Your task to perform on an android device: Open calendar and show me the third week of next month Image 0: 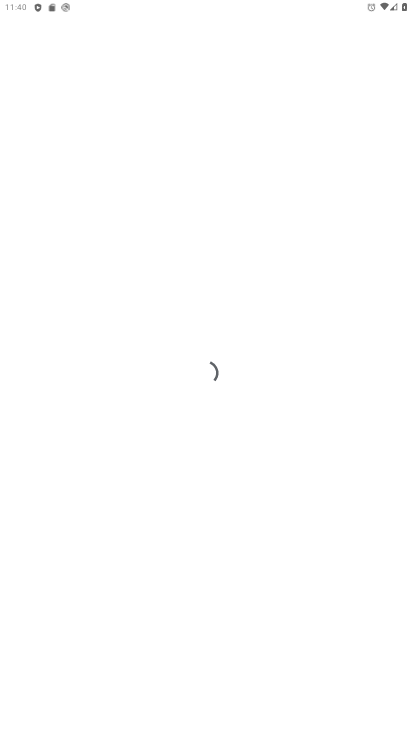
Step 0: press home button
Your task to perform on an android device: Open calendar and show me the third week of next month Image 1: 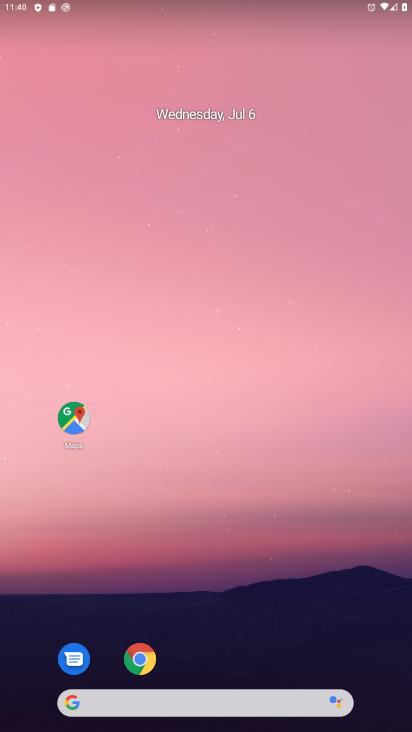
Step 1: click (245, 115)
Your task to perform on an android device: Open calendar and show me the third week of next month Image 2: 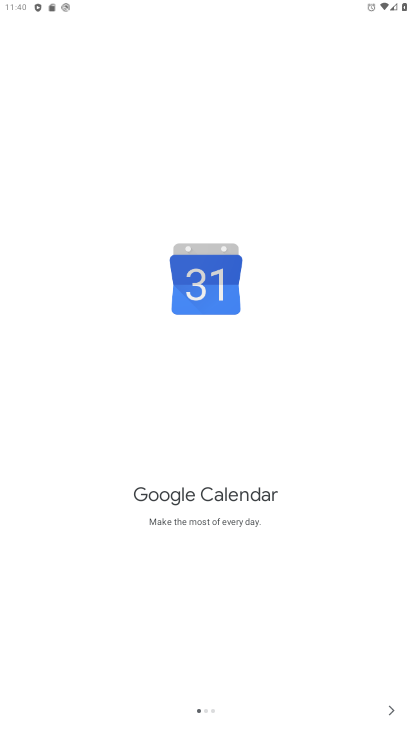
Step 2: click (395, 714)
Your task to perform on an android device: Open calendar and show me the third week of next month Image 3: 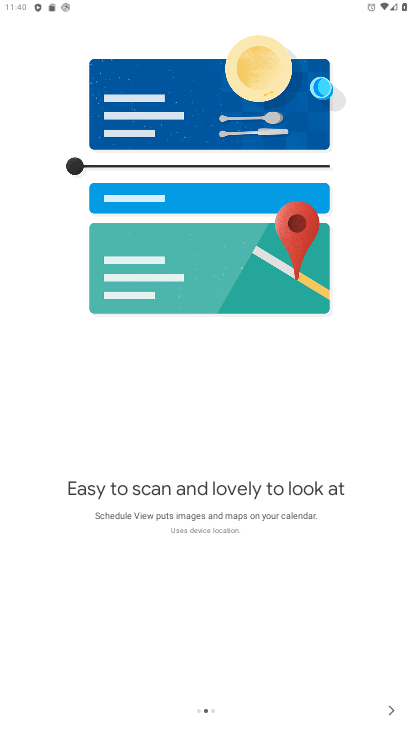
Step 3: click (395, 714)
Your task to perform on an android device: Open calendar and show me the third week of next month Image 4: 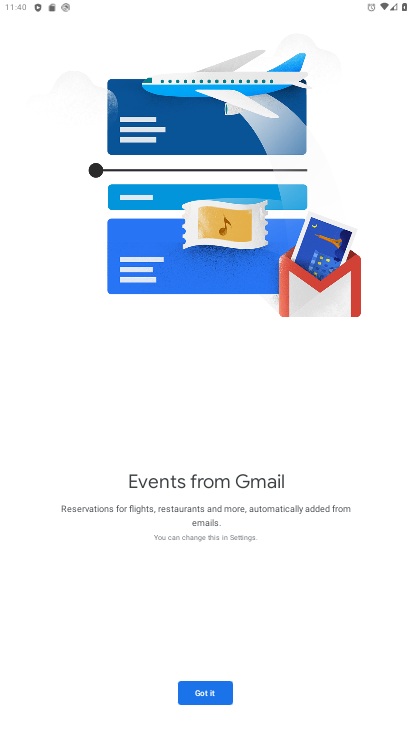
Step 4: click (198, 690)
Your task to perform on an android device: Open calendar and show me the third week of next month Image 5: 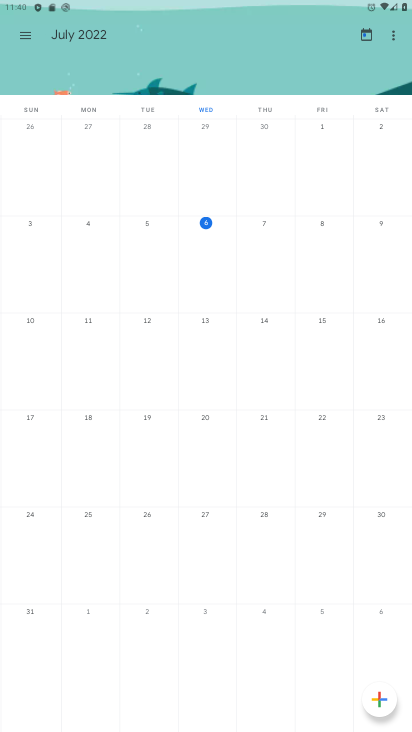
Step 5: click (95, 29)
Your task to perform on an android device: Open calendar and show me the third week of next month Image 6: 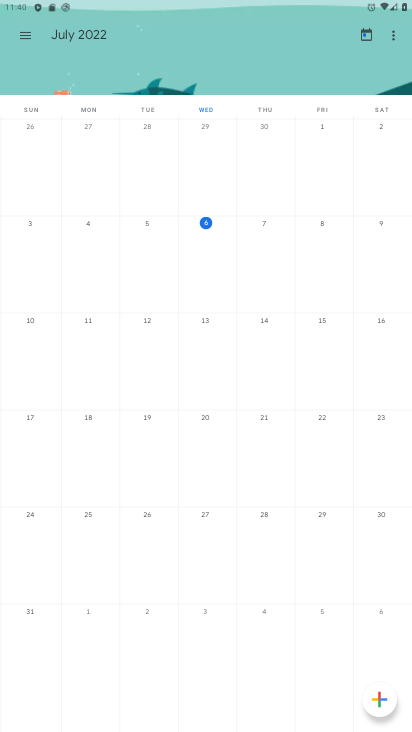
Step 6: click (99, 40)
Your task to perform on an android device: Open calendar and show me the third week of next month Image 7: 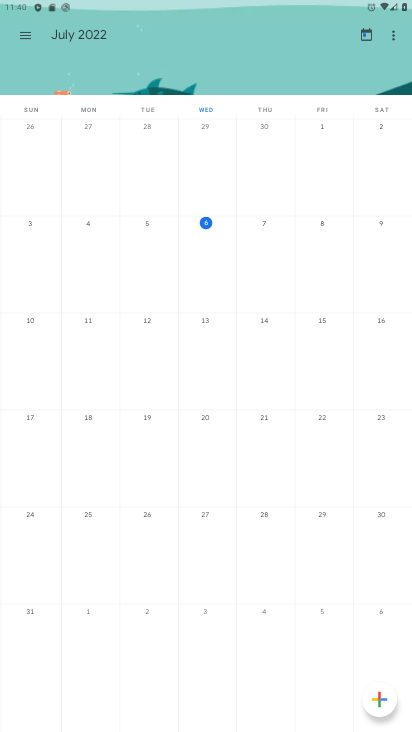
Step 7: click (99, 40)
Your task to perform on an android device: Open calendar and show me the third week of next month Image 8: 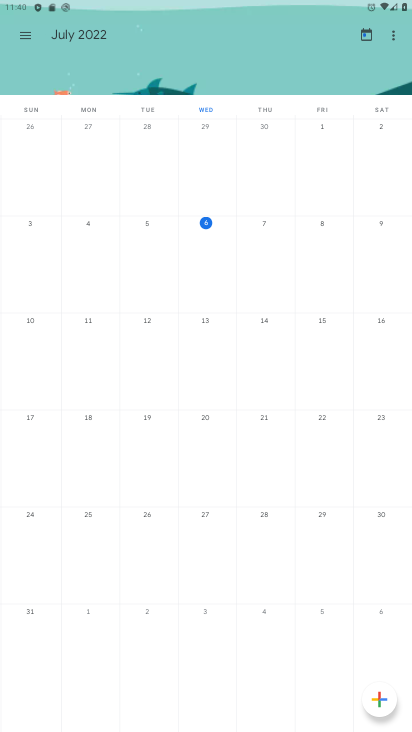
Step 8: click (372, 28)
Your task to perform on an android device: Open calendar and show me the third week of next month Image 9: 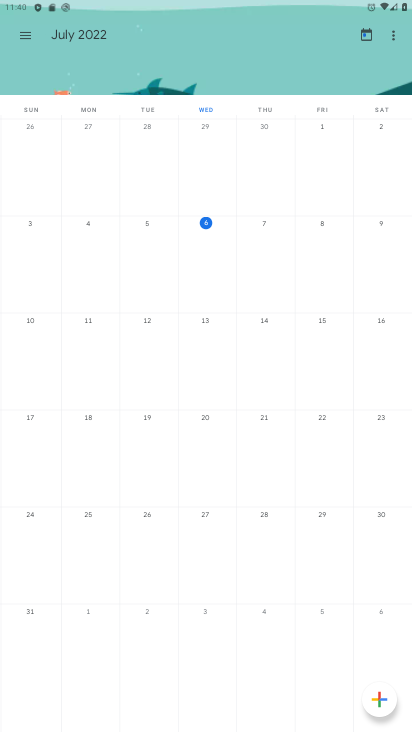
Step 9: click (367, 37)
Your task to perform on an android device: Open calendar and show me the third week of next month Image 10: 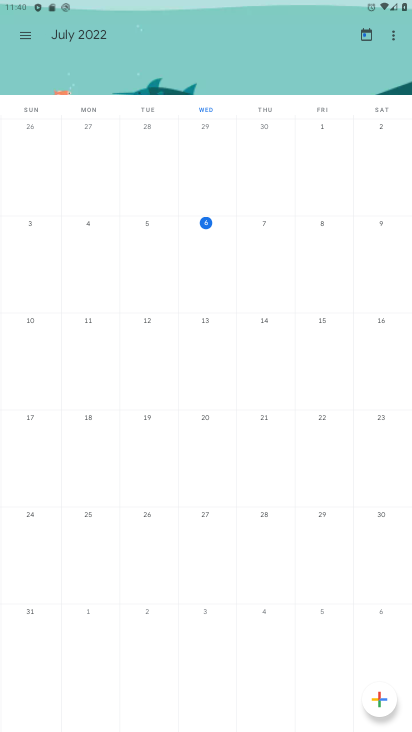
Step 10: click (363, 37)
Your task to perform on an android device: Open calendar and show me the third week of next month Image 11: 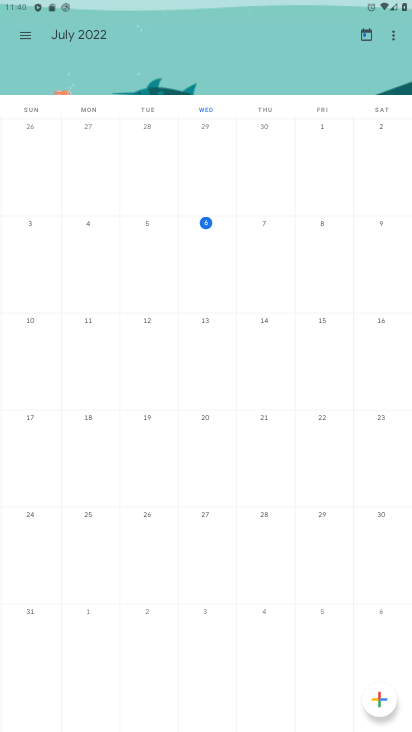
Step 11: click (363, 37)
Your task to perform on an android device: Open calendar and show me the third week of next month Image 12: 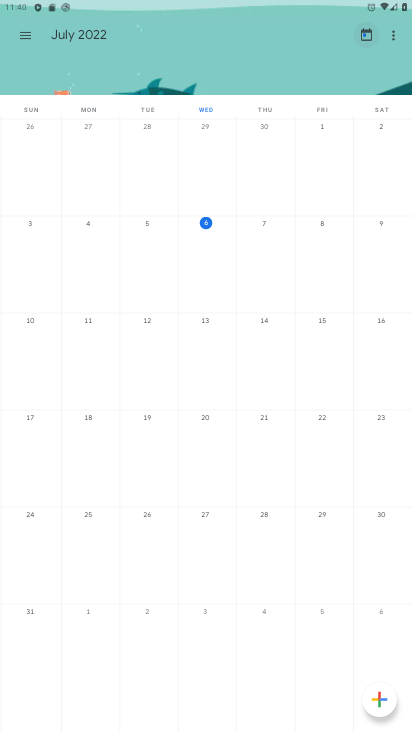
Step 12: click (363, 37)
Your task to perform on an android device: Open calendar and show me the third week of next month Image 13: 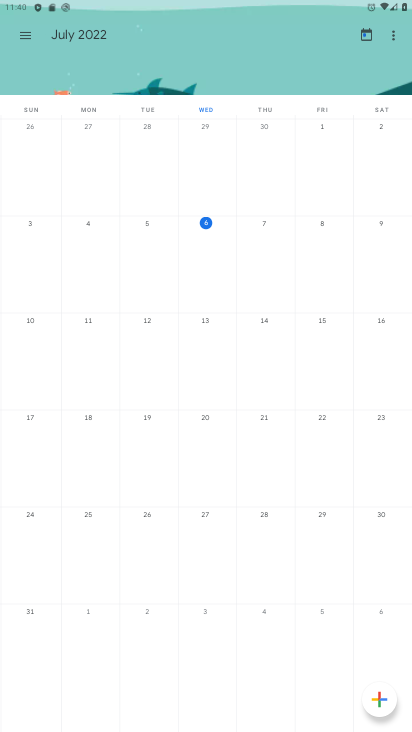
Step 13: click (114, 30)
Your task to perform on an android device: Open calendar and show me the third week of next month Image 14: 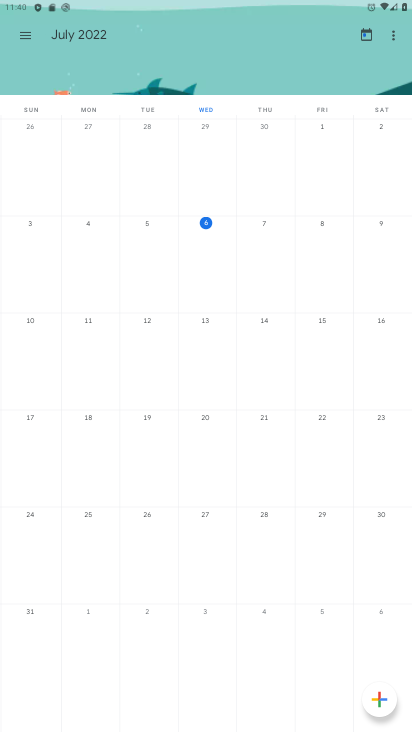
Step 14: click (11, 43)
Your task to perform on an android device: Open calendar and show me the third week of next month Image 15: 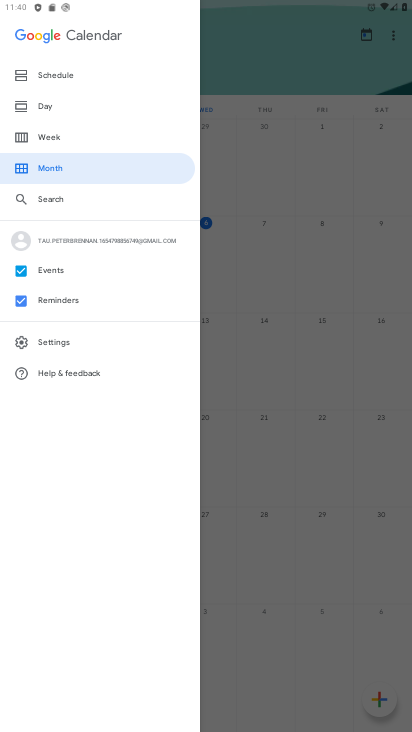
Step 15: click (102, 106)
Your task to perform on an android device: Open calendar and show me the third week of next month Image 16: 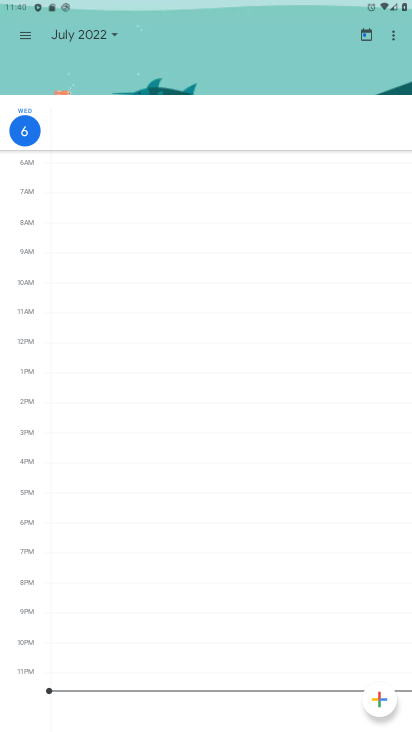
Step 16: click (116, 30)
Your task to perform on an android device: Open calendar and show me the third week of next month Image 17: 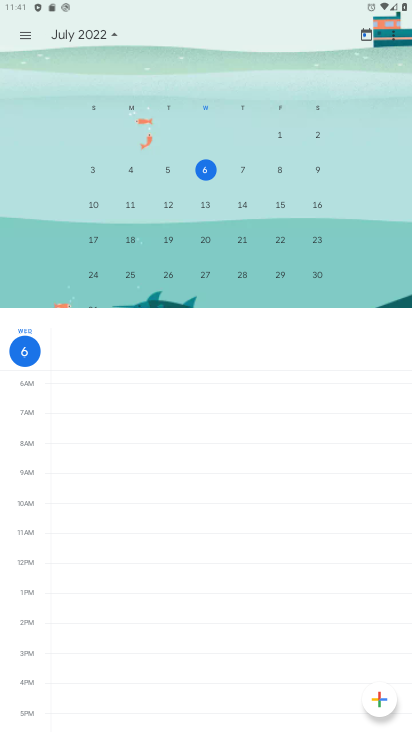
Step 17: drag from (359, 234) to (8, 241)
Your task to perform on an android device: Open calendar and show me the third week of next month Image 18: 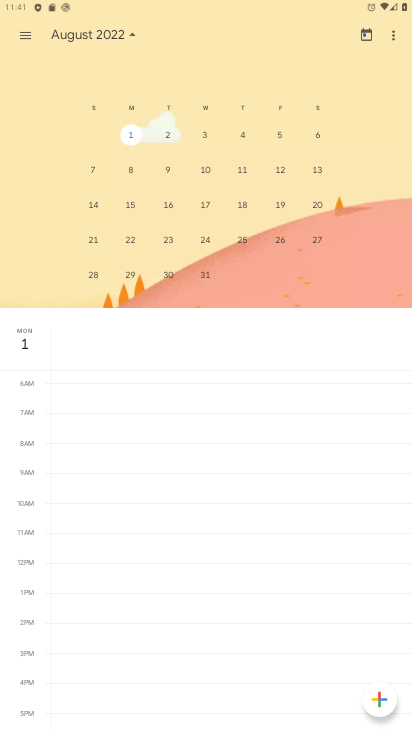
Step 18: click (135, 203)
Your task to perform on an android device: Open calendar and show me the third week of next month Image 19: 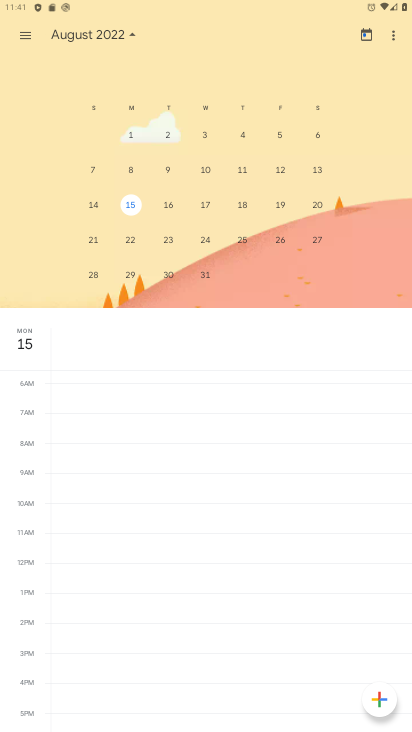
Step 19: task complete